Your task to perform on an android device: check storage Image 0: 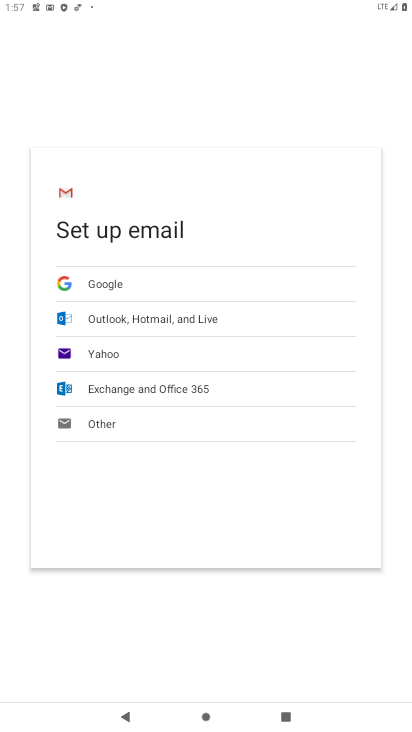
Step 0: press home button
Your task to perform on an android device: check storage Image 1: 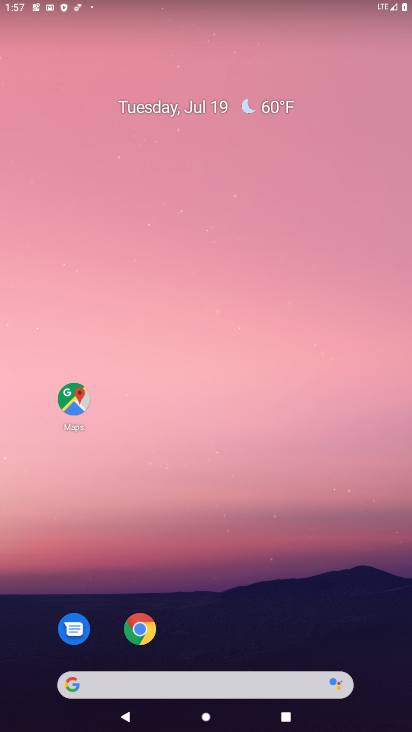
Step 1: drag from (363, 641) to (315, 251)
Your task to perform on an android device: check storage Image 2: 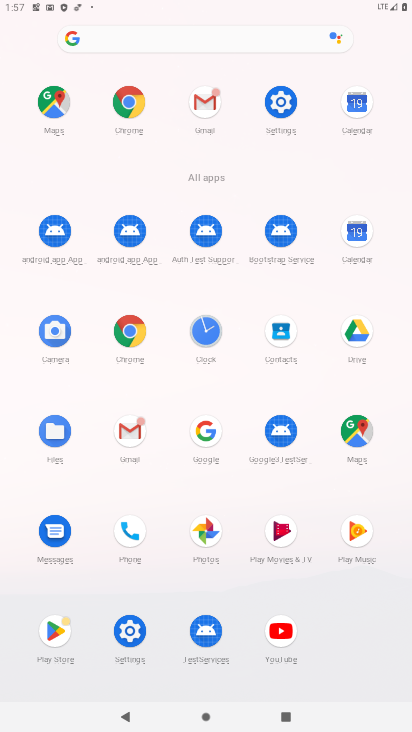
Step 2: click (131, 632)
Your task to perform on an android device: check storage Image 3: 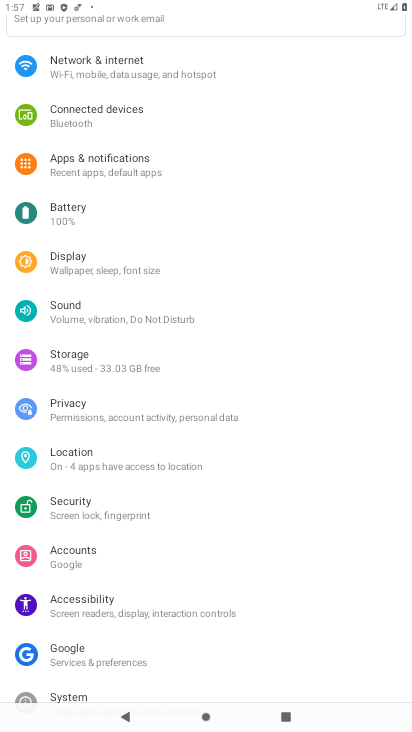
Step 3: click (76, 355)
Your task to perform on an android device: check storage Image 4: 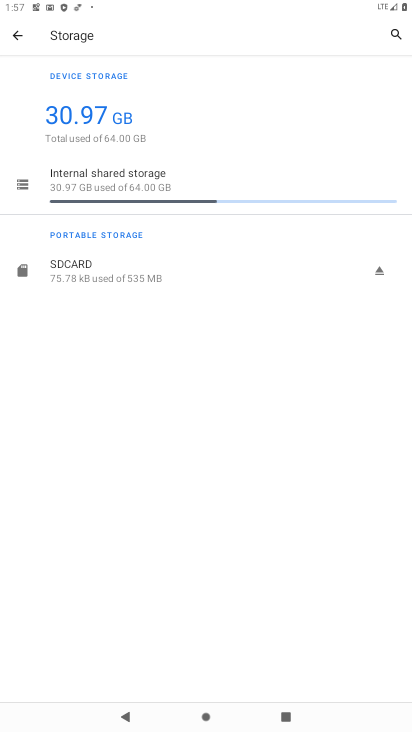
Step 4: task complete